Your task to perform on an android device: toggle location history Image 0: 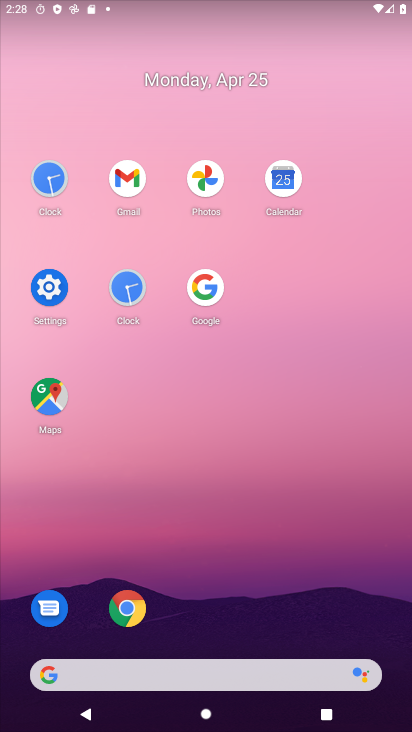
Step 0: click (47, 297)
Your task to perform on an android device: toggle location history Image 1: 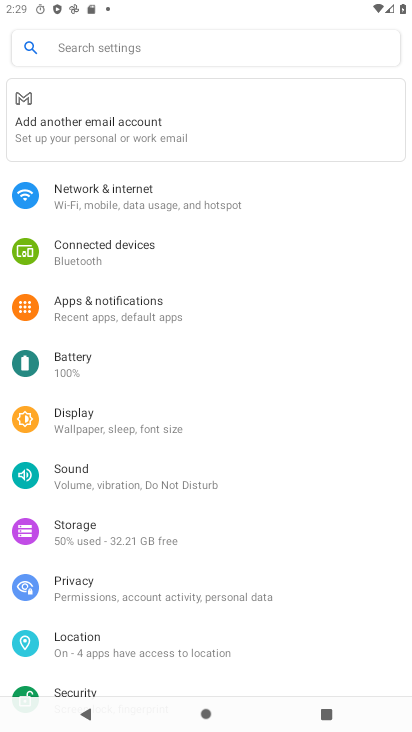
Step 1: click (113, 650)
Your task to perform on an android device: toggle location history Image 2: 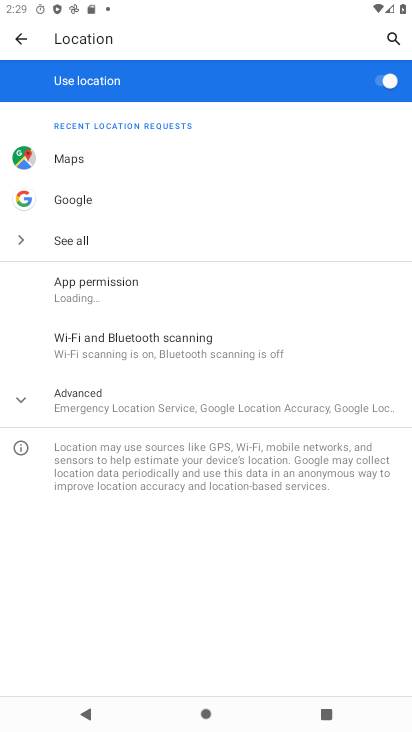
Step 2: click (162, 425)
Your task to perform on an android device: toggle location history Image 3: 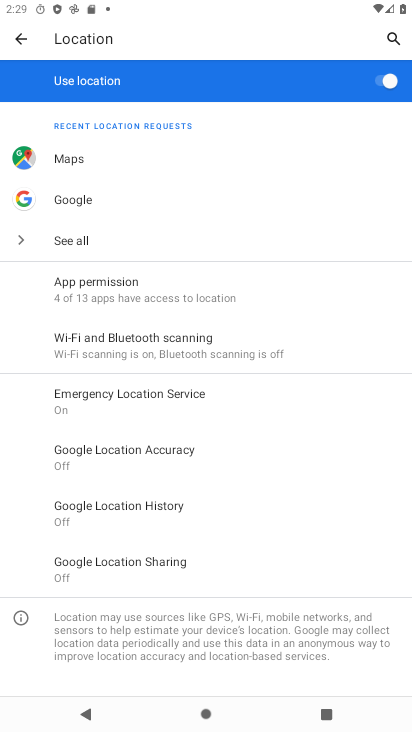
Step 3: click (135, 495)
Your task to perform on an android device: toggle location history Image 4: 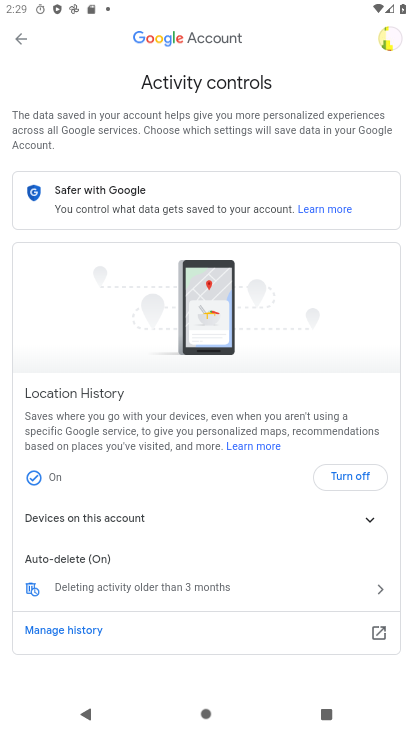
Step 4: click (359, 480)
Your task to perform on an android device: toggle location history Image 5: 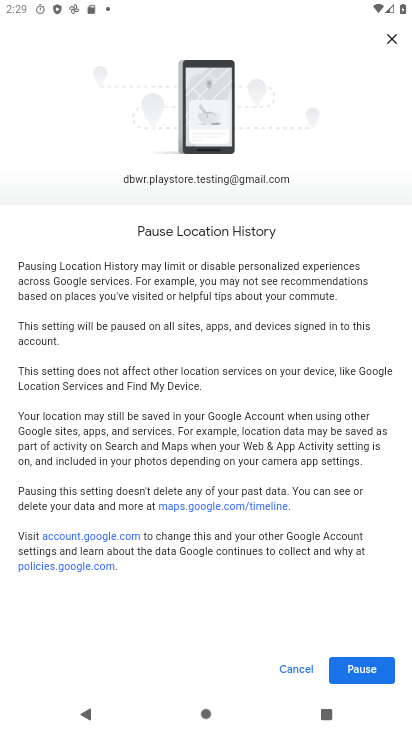
Step 5: click (359, 669)
Your task to perform on an android device: toggle location history Image 6: 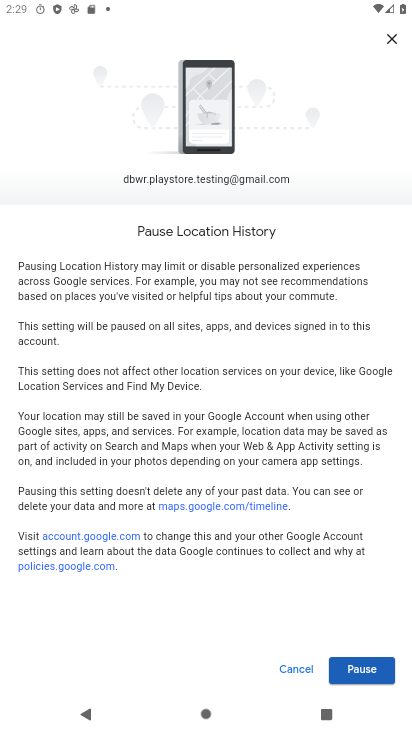
Step 6: click (365, 665)
Your task to perform on an android device: toggle location history Image 7: 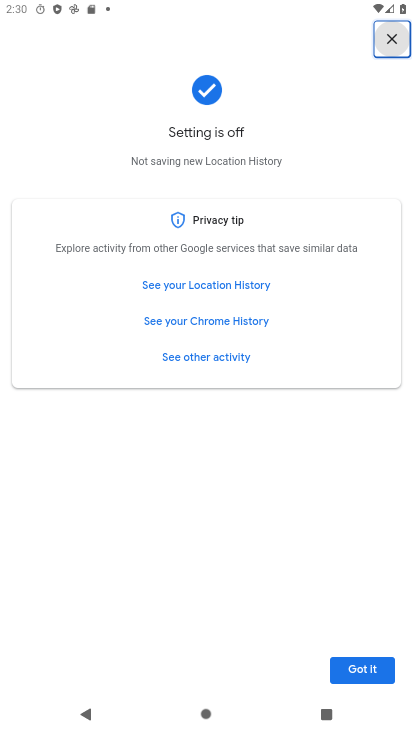
Step 7: click (364, 665)
Your task to perform on an android device: toggle location history Image 8: 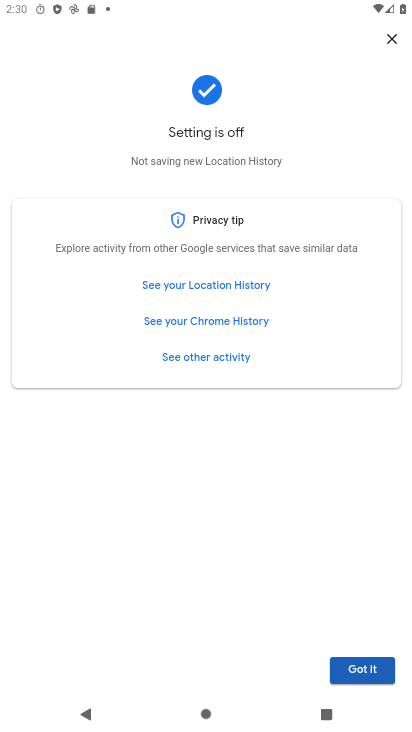
Step 8: click (388, 665)
Your task to perform on an android device: toggle location history Image 9: 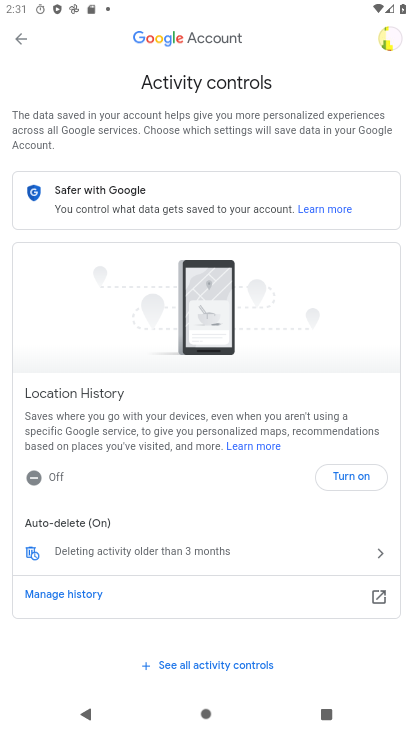
Step 9: task complete